Your task to perform on an android device: What is the news today? Image 0: 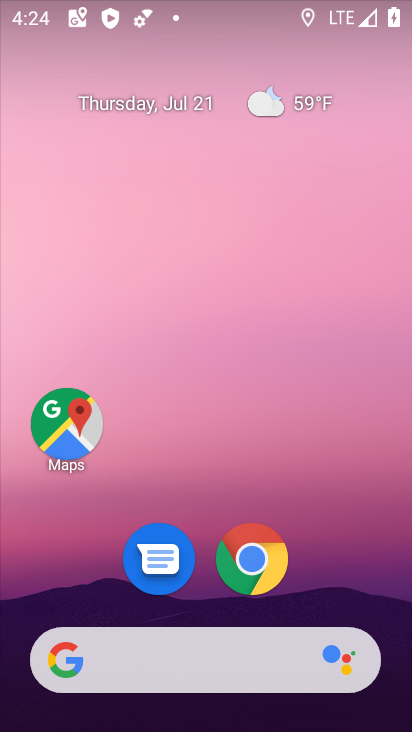
Step 0: click (181, 660)
Your task to perform on an android device: What is the news today? Image 1: 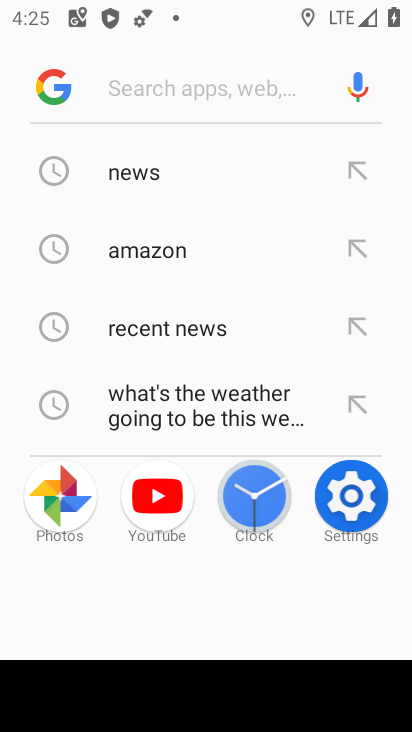
Step 1: click (145, 179)
Your task to perform on an android device: What is the news today? Image 2: 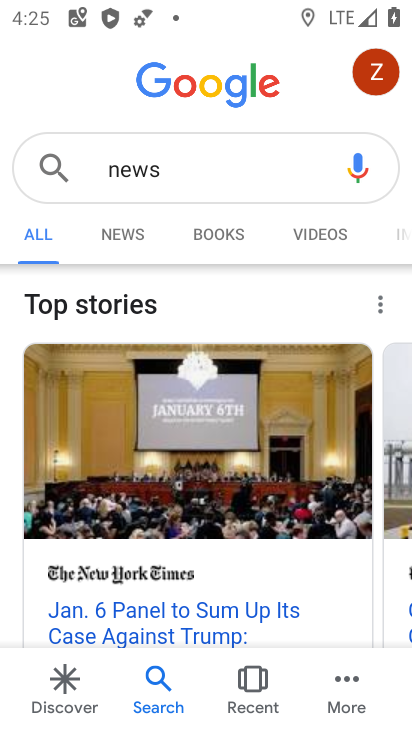
Step 2: task complete